Your task to perform on an android device: check out phone information Image 0: 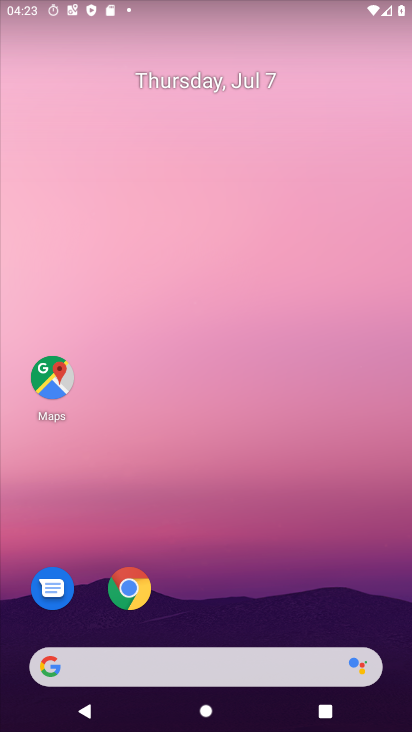
Step 0: drag from (199, 616) to (178, 136)
Your task to perform on an android device: check out phone information Image 1: 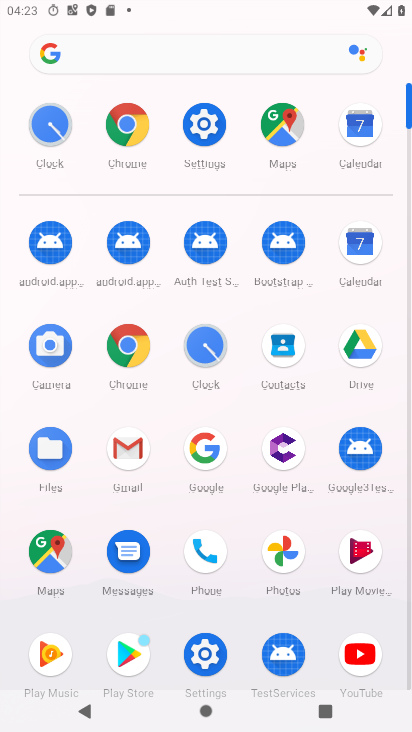
Step 1: click (208, 134)
Your task to perform on an android device: check out phone information Image 2: 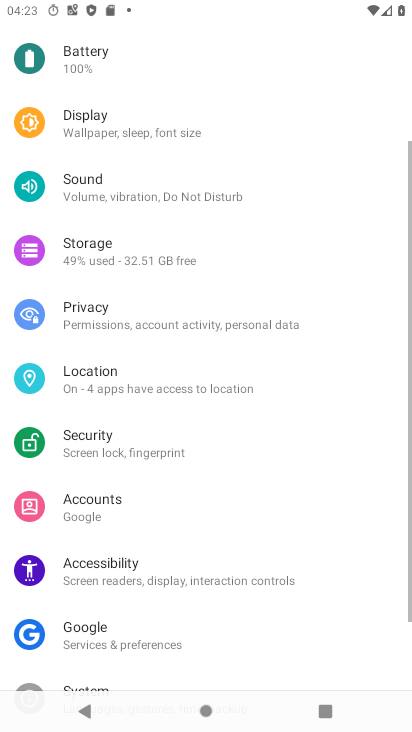
Step 2: drag from (309, 627) to (323, 23)
Your task to perform on an android device: check out phone information Image 3: 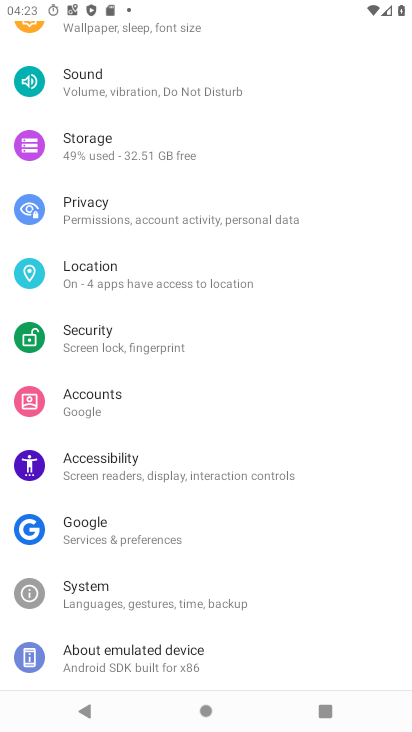
Step 3: click (143, 657)
Your task to perform on an android device: check out phone information Image 4: 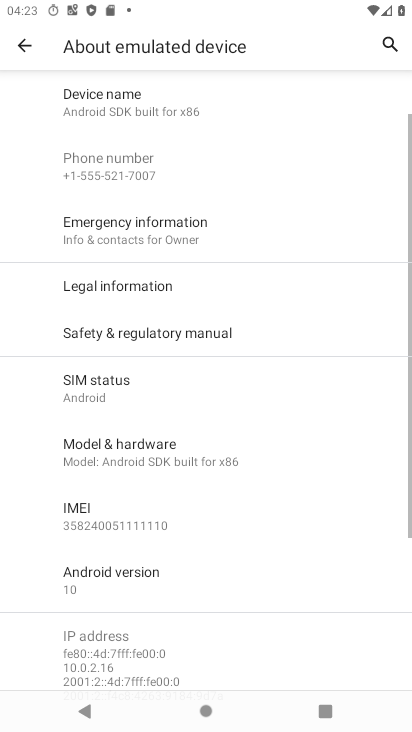
Step 4: task complete